Your task to perform on an android device: see creations saved in the google photos Image 0: 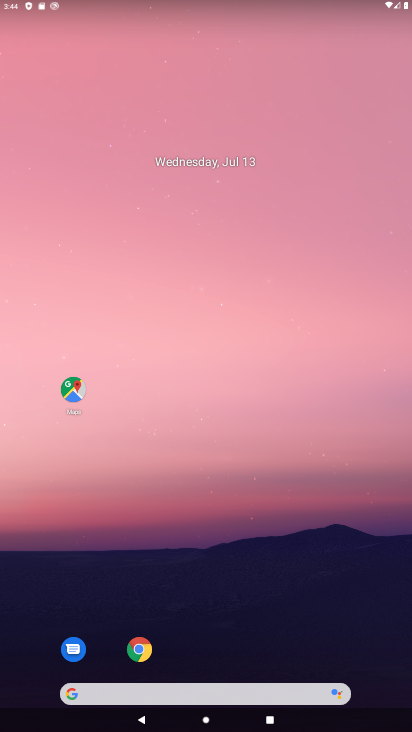
Step 0: drag from (232, 701) to (227, 185)
Your task to perform on an android device: see creations saved in the google photos Image 1: 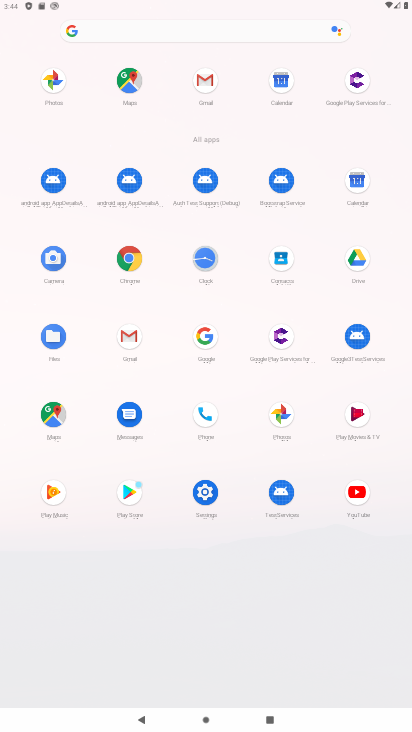
Step 1: click (289, 411)
Your task to perform on an android device: see creations saved in the google photos Image 2: 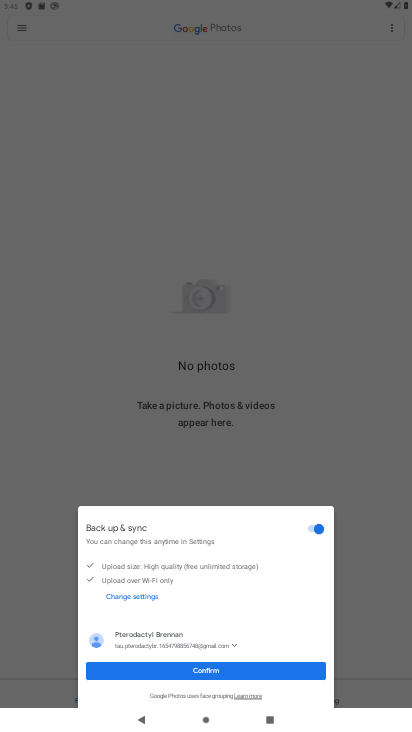
Step 2: click (192, 670)
Your task to perform on an android device: see creations saved in the google photos Image 3: 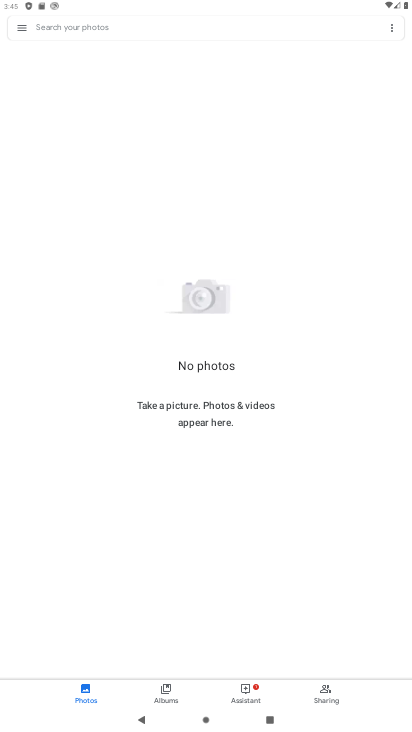
Step 3: click (114, 30)
Your task to perform on an android device: see creations saved in the google photos Image 4: 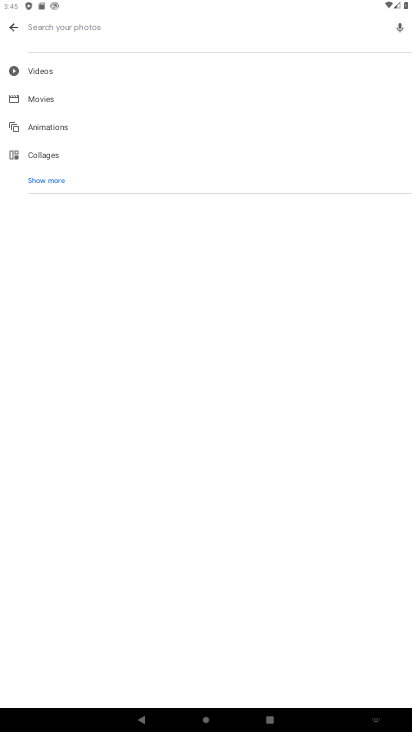
Step 4: click (51, 178)
Your task to perform on an android device: see creations saved in the google photos Image 5: 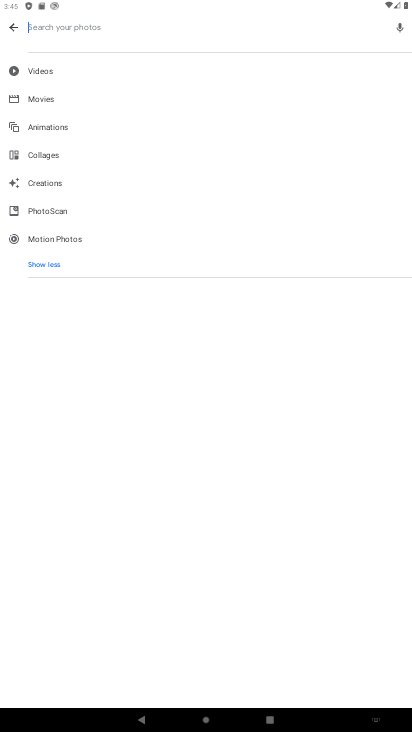
Step 5: click (41, 179)
Your task to perform on an android device: see creations saved in the google photos Image 6: 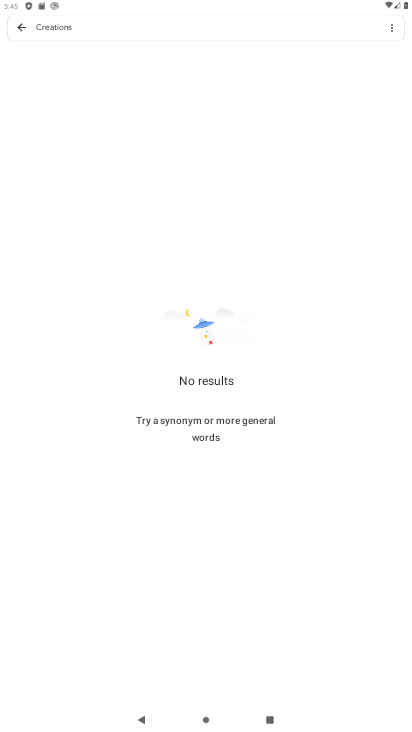
Step 6: task complete